Your task to perform on an android device: change the clock display to analog Image 0: 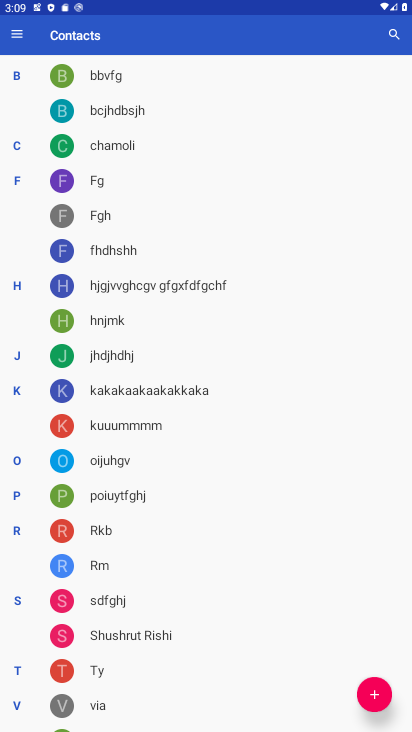
Step 0: press home button
Your task to perform on an android device: change the clock display to analog Image 1: 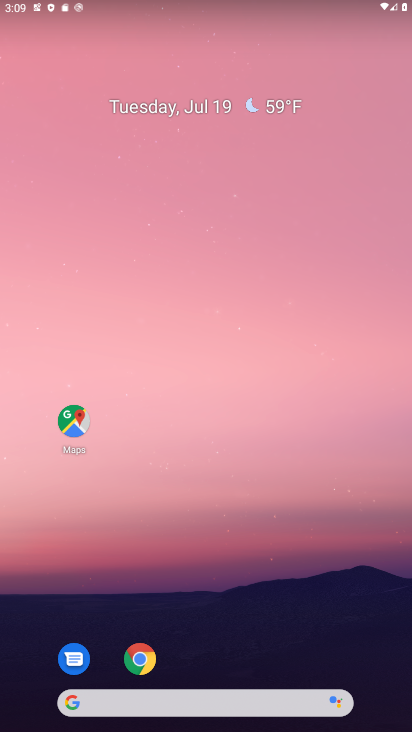
Step 1: drag from (204, 703) to (206, 328)
Your task to perform on an android device: change the clock display to analog Image 2: 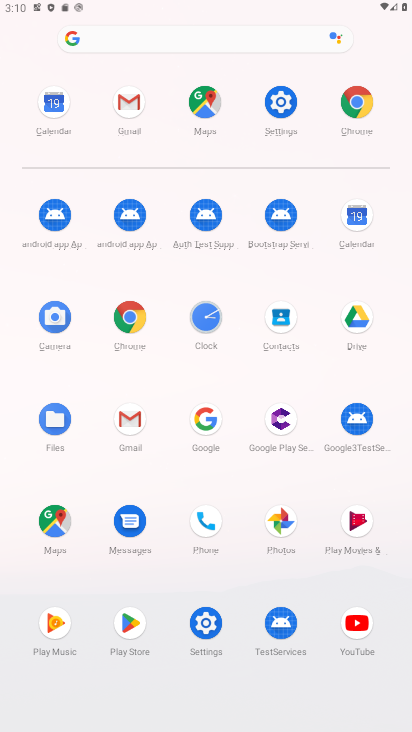
Step 2: click (206, 318)
Your task to perform on an android device: change the clock display to analog Image 3: 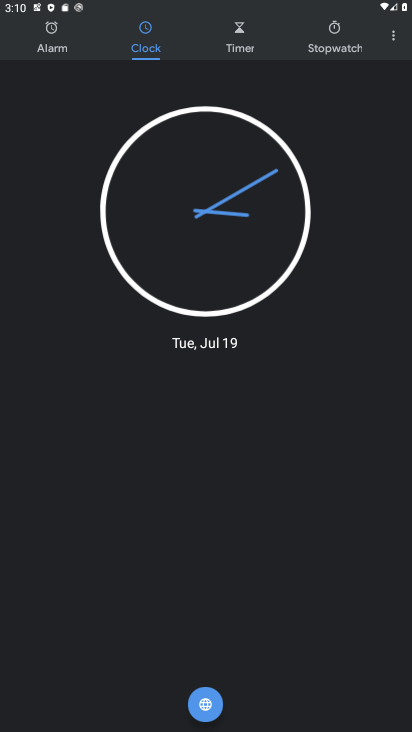
Step 3: click (394, 35)
Your task to perform on an android device: change the clock display to analog Image 4: 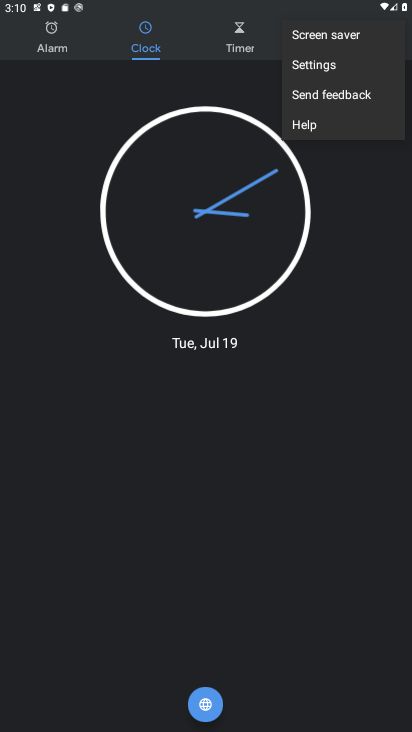
Step 4: click (334, 67)
Your task to perform on an android device: change the clock display to analog Image 5: 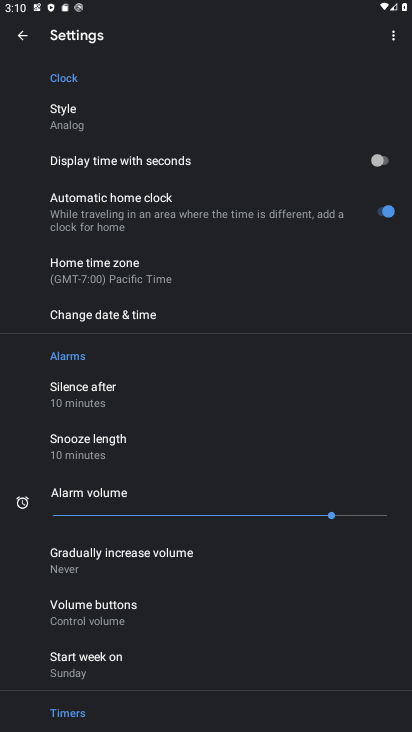
Step 5: task complete